Your task to perform on an android device: Go to accessibility settings Image 0: 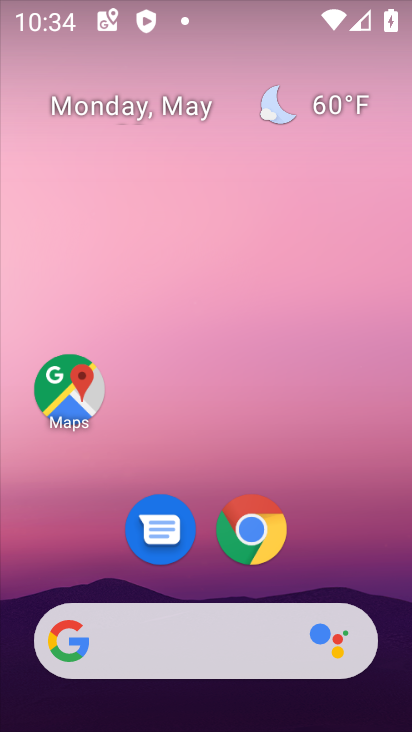
Step 0: drag from (335, 511) to (247, 127)
Your task to perform on an android device: Go to accessibility settings Image 1: 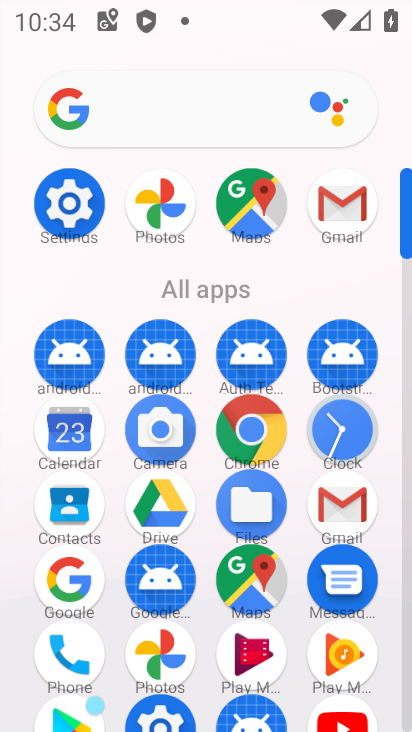
Step 1: click (72, 208)
Your task to perform on an android device: Go to accessibility settings Image 2: 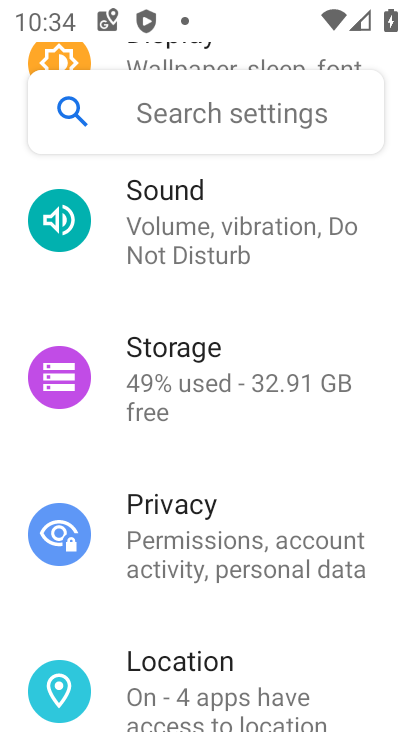
Step 2: drag from (277, 642) to (241, 268)
Your task to perform on an android device: Go to accessibility settings Image 3: 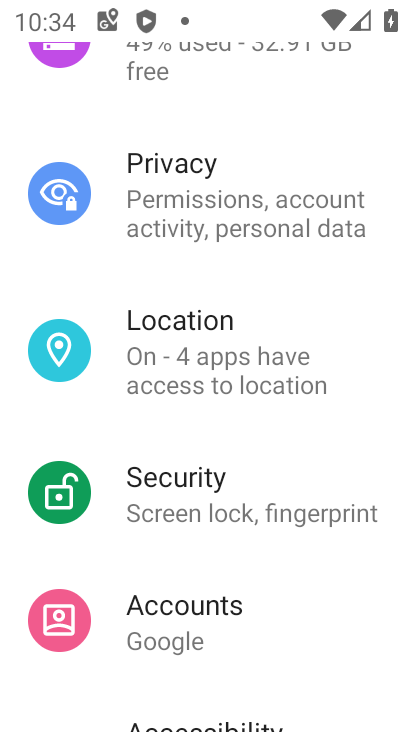
Step 3: drag from (235, 563) to (205, 220)
Your task to perform on an android device: Go to accessibility settings Image 4: 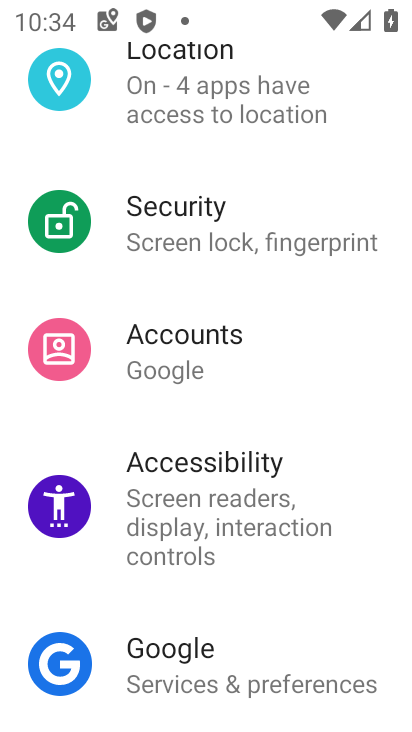
Step 4: click (205, 464)
Your task to perform on an android device: Go to accessibility settings Image 5: 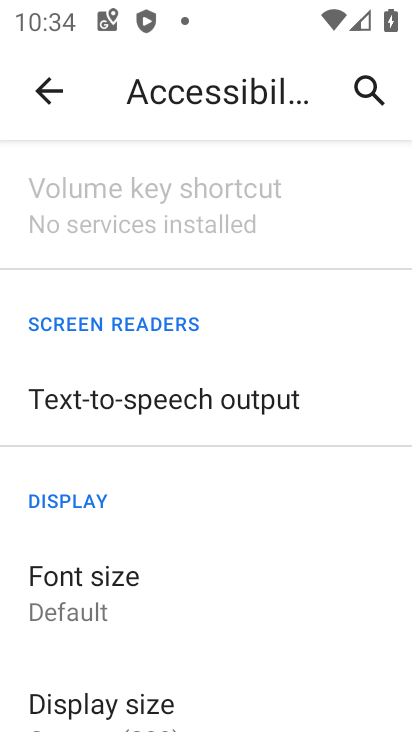
Step 5: task complete